Your task to perform on an android device: turn pop-ups off in chrome Image 0: 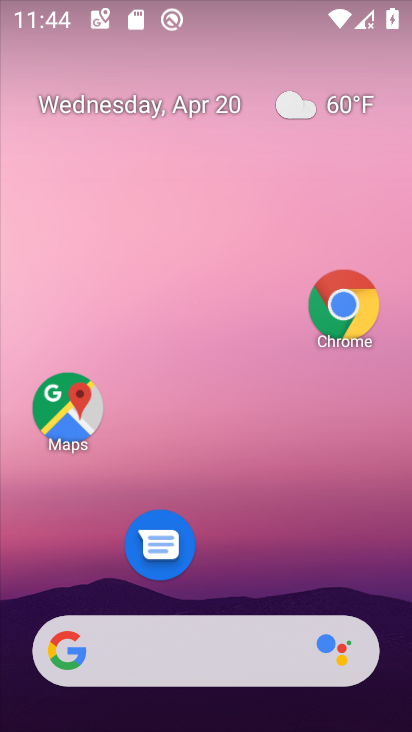
Step 0: drag from (267, 634) to (323, 216)
Your task to perform on an android device: turn pop-ups off in chrome Image 1: 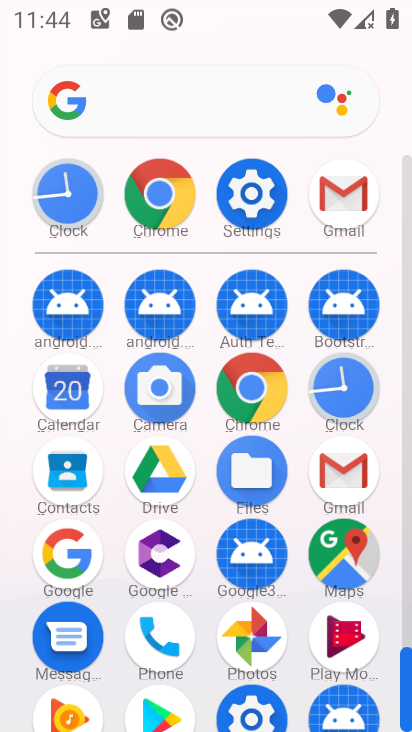
Step 1: click (256, 413)
Your task to perform on an android device: turn pop-ups off in chrome Image 2: 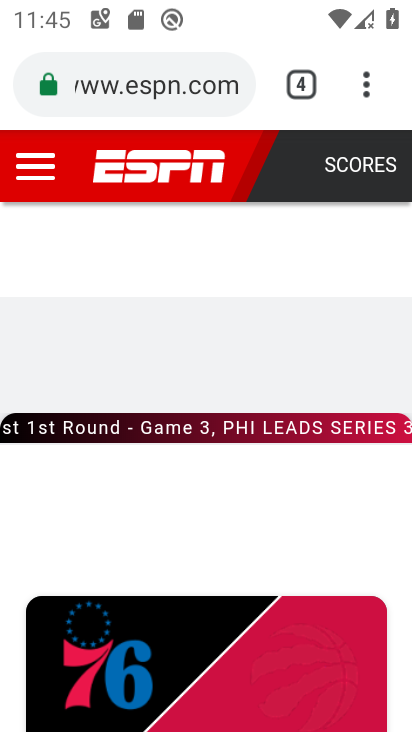
Step 2: click (373, 86)
Your task to perform on an android device: turn pop-ups off in chrome Image 3: 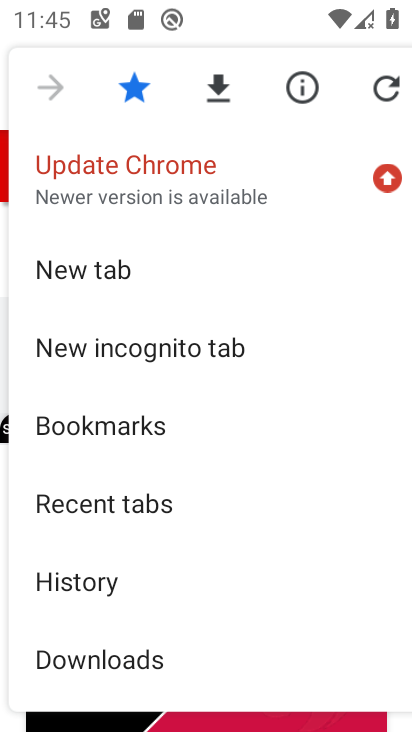
Step 3: drag from (149, 540) to (199, 230)
Your task to perform on an android device: turn pop-ups off in chrome Image 4: 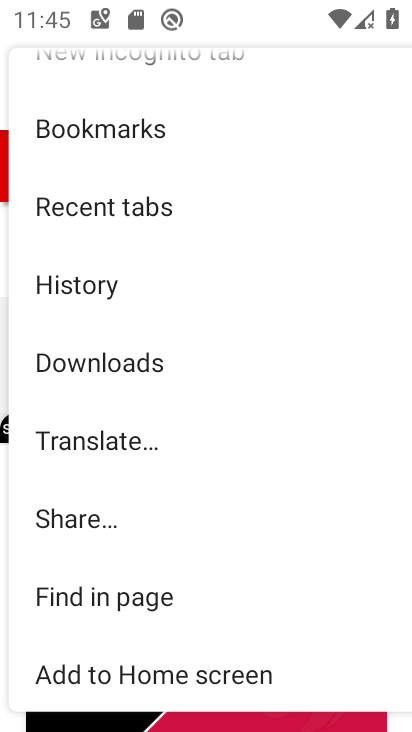
Step 4: drag from (102, 581) to (150, 249)
Your task to perform on an android device: turn pop-ups off in chrome Image 5: 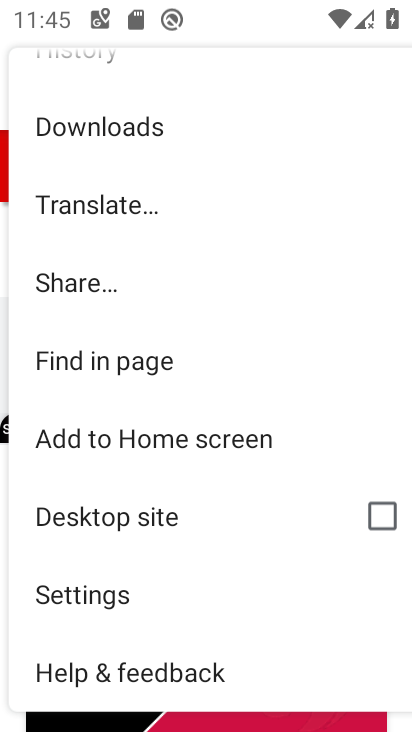
Step 5: click (106, 601)
Your task to perform on an android device: turn pop-ups off in chrome Image 6: 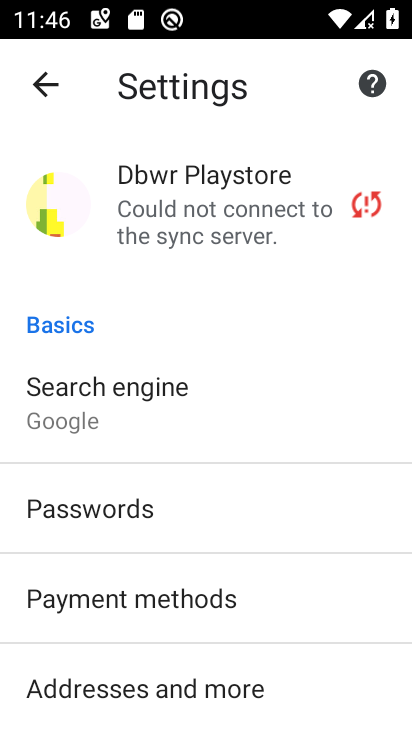
Step 6: drag from (205, 568) to (184, 251)
Your task to perform on an android device: turn pop-ups off in chrome Image 7: 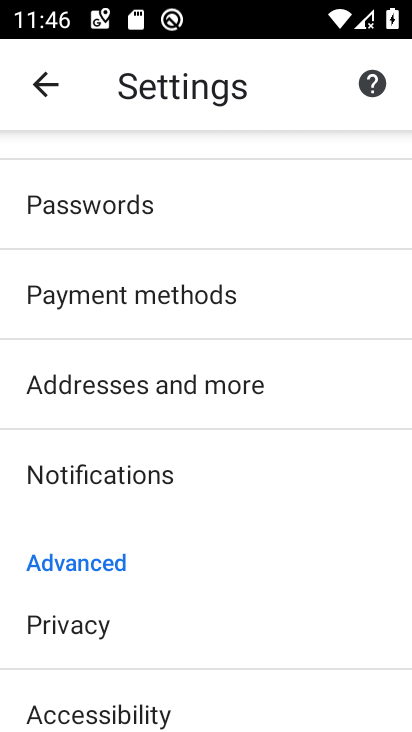
Step 7: drag from (184, 386) to (202, 99)
Your task to perform on an android device: turn pop-ups off in chrome Image 8: 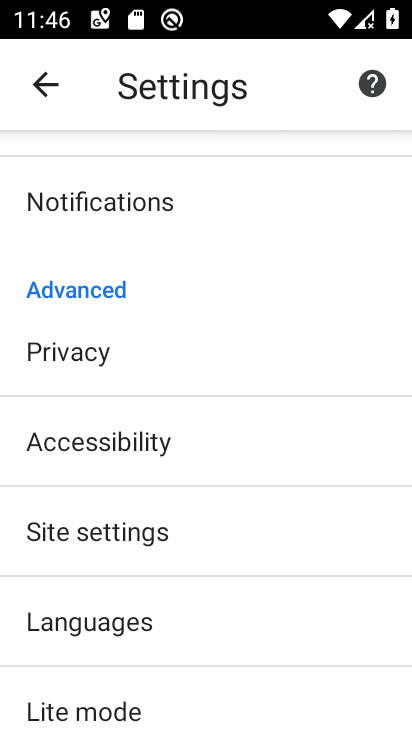
Step 8: click (119, 530)
Your task to perform on an android device: turn pop-ups off in chrome Image 9: 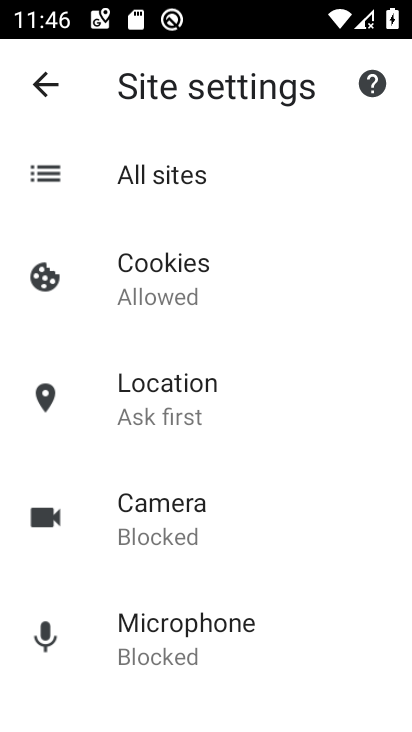
Step 9: drag from (199, 472) to (198, 214)
Your task to perform on an android device: turn pop-ups off in chrome Image 10: 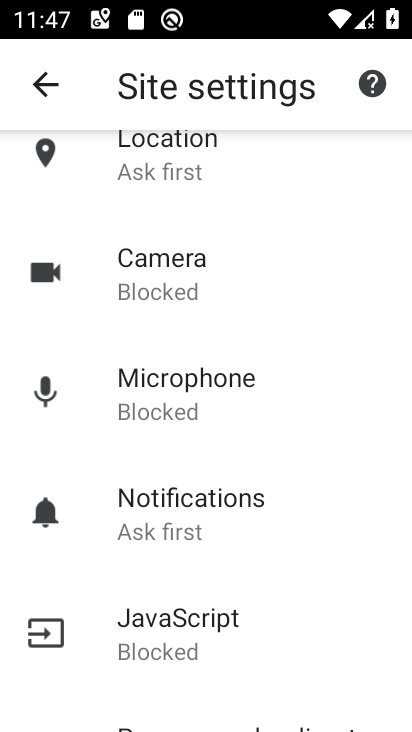
Step 10: drag from (213, 455) to (221, 186)
Your task to perform on an android device: turn pop-ups off in chrome Image 11: 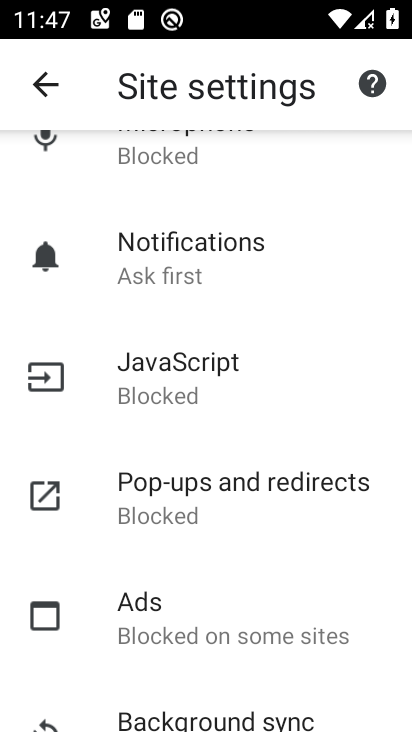
Step 11: drag from (207, 608) to (225, 179)
Your task to perform on an android device: turn pop-ups off in chrome Image 12: 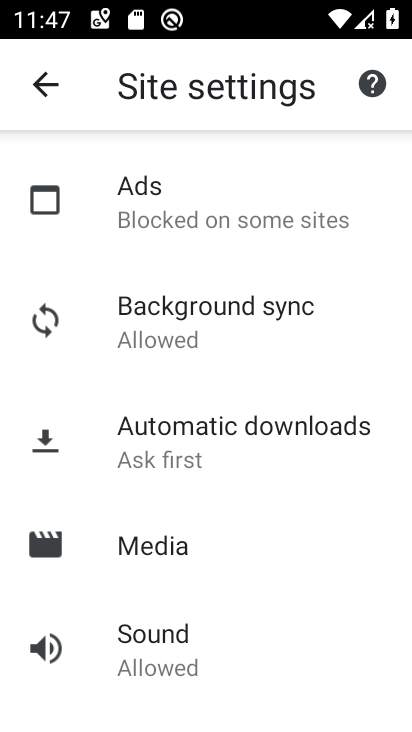
Step 12: drag from (207, 376) to (227, 661)
Your task to perform on an android device: turn pop-ups off in chrome Image 13: 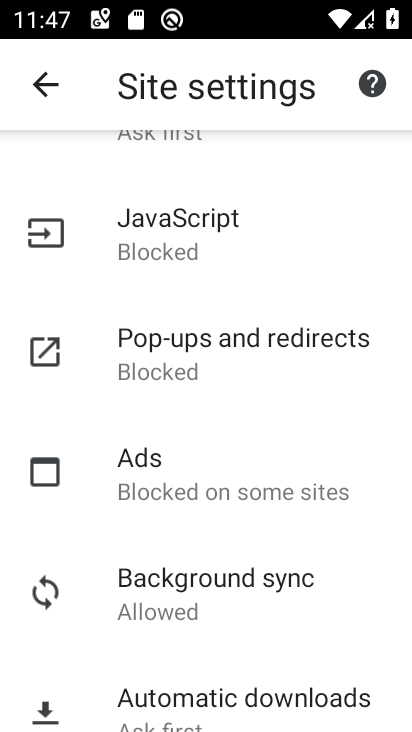
Step 13: click (213, 347)
Your task to perform on an android device: turn pop-ups off in chrome Image 14: 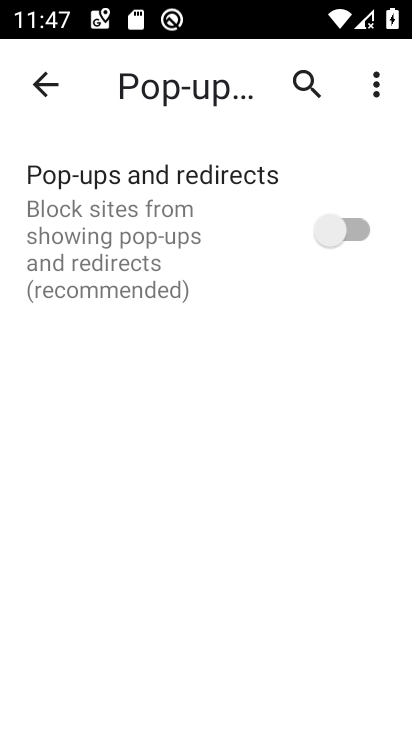
Step 14: task complete